Your task to perform on an android device: change text size in settings app Image 0: 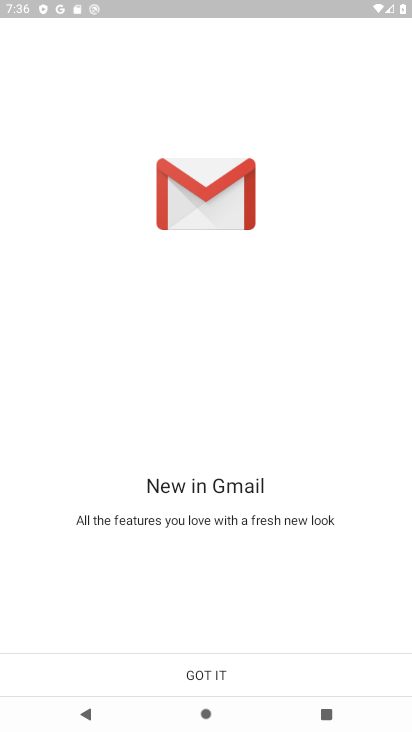
Step 0: press home button
Your task to perform on an android device: change text size in settings app Image 1: 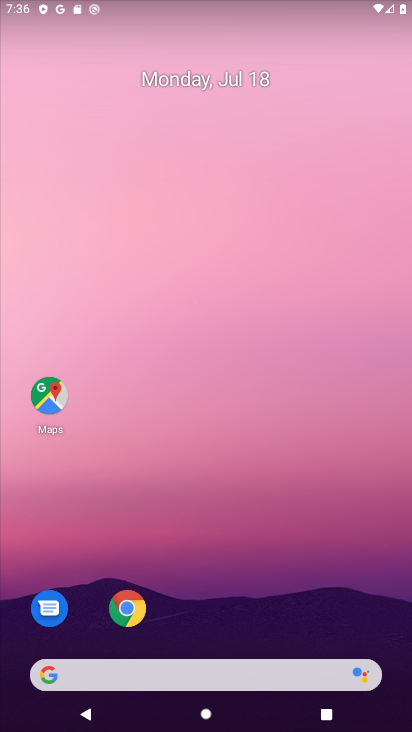
Step 1: drag from (212, 630) to (283, 75)
Your task to perform on an android device: change text size in settings app Image 2: 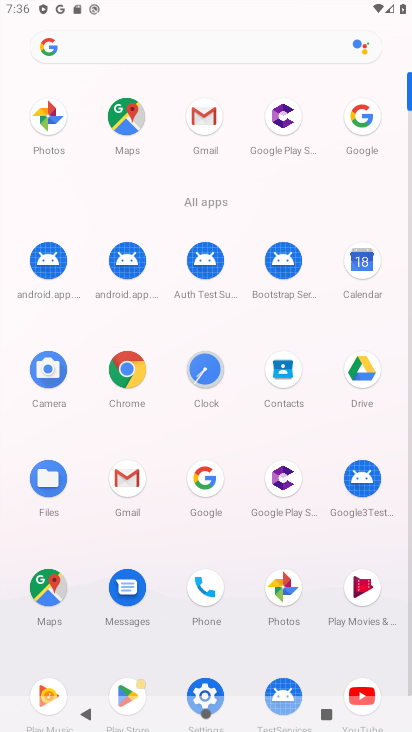
Step 2: drag from (184, 649) to (163, 290)
Your task to perform on an android device: change text size in settings app Image 3: 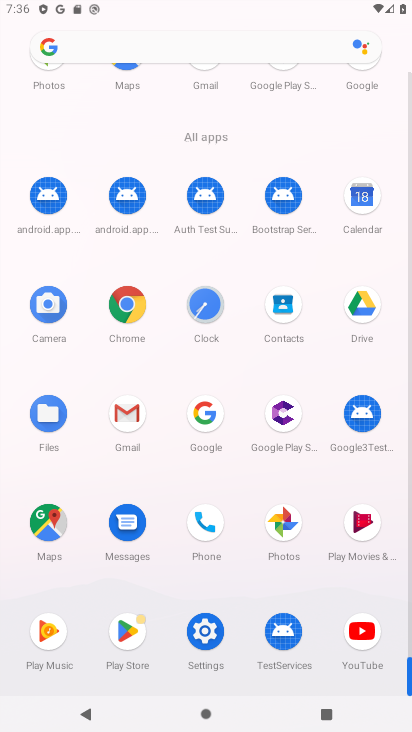
Step 3: click (208, 628)
Your task to perform on an android device: change text size in settings app Image 4: 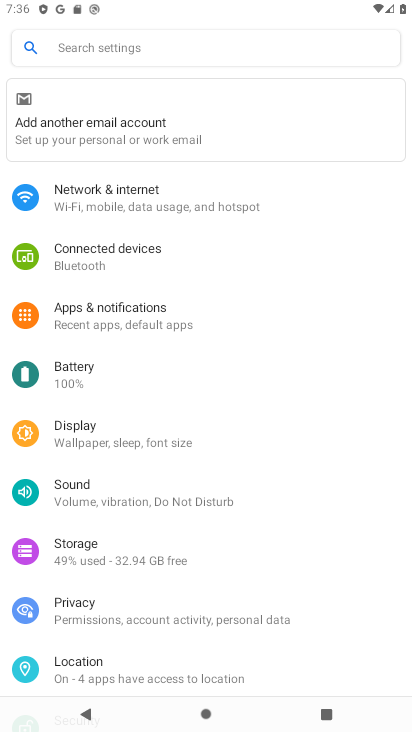
Step 4: click (125, 429)
Your task to perform on an android device: change text size in settings app Image 5: 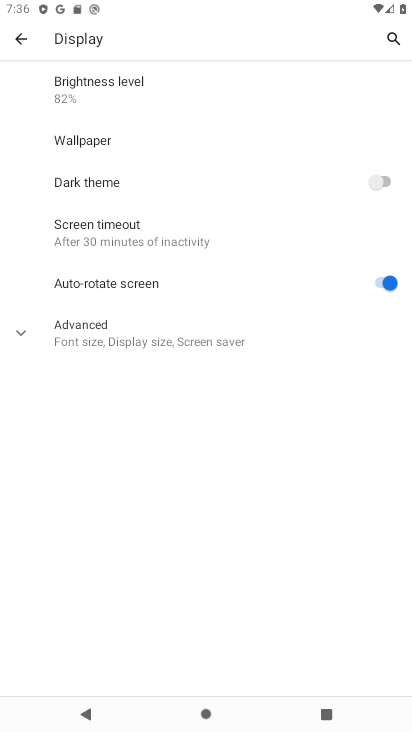
Step 5: click (67, 329)
Your task to perform on an android device: change text size in settings app Image 6: 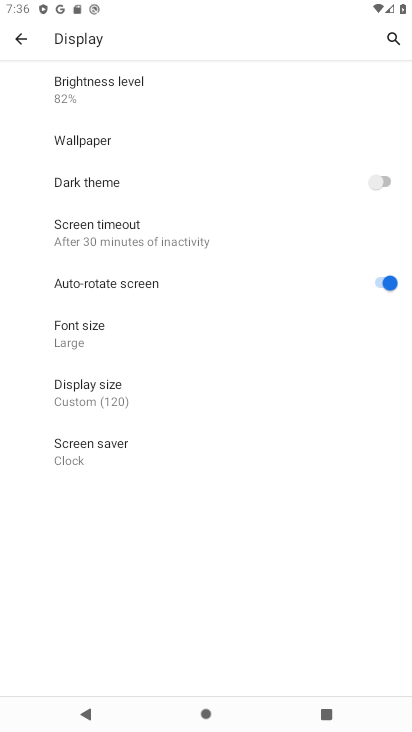
Step 6: click (92, 333)
Your task to perform on an android device: change text size in settings app Image 7: 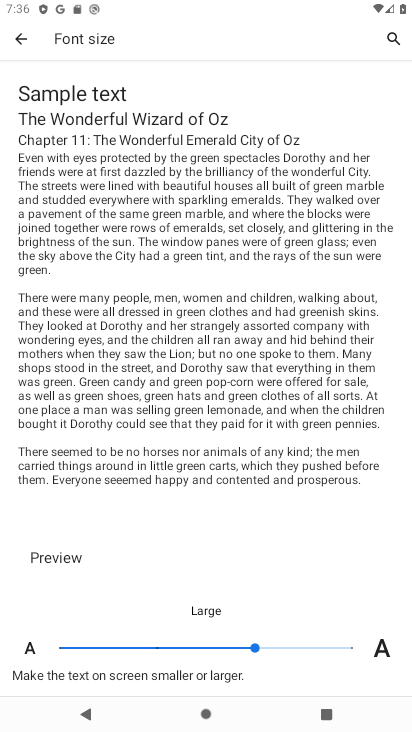
Step 7: task complete